Your task to perform on an android device: Go to calendar. Show me events next week Image 0: 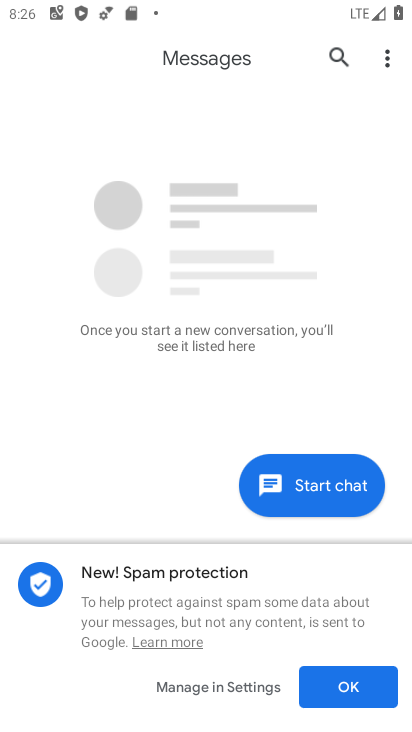
Step 0: press back button
Your task to perform on an android device: Go to calendar. Show me events next week Image 1: 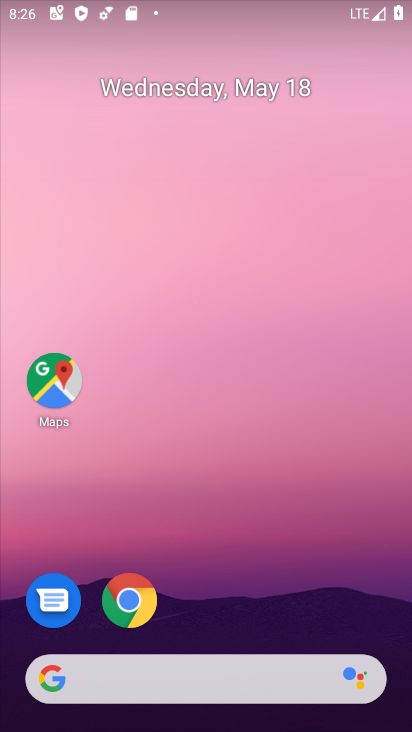
Step 1: drag from (235, 584) to (287, 52)
Your task to perform on an android device: Go to calendar. Show me events next week Image 2: 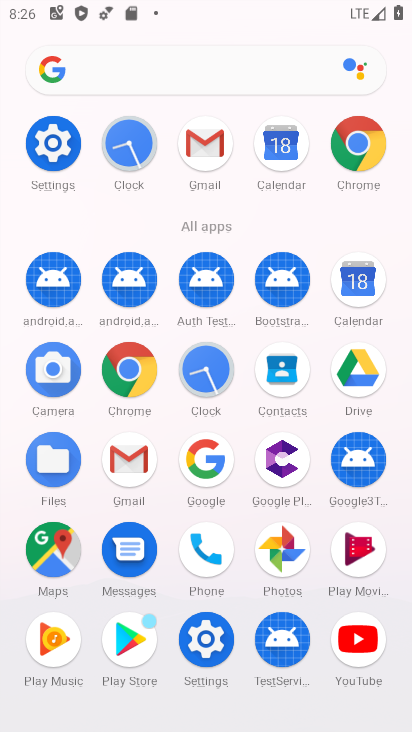
Step 2: click (360, 296)
Your task to perform on an android device: Go to calendar. Show me events next week Image 3: 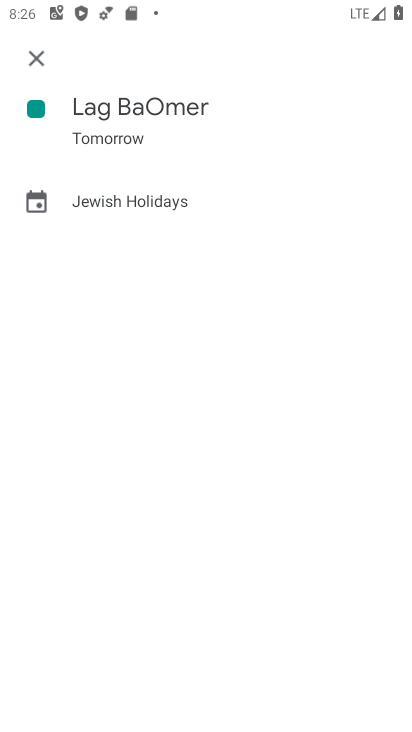
Step 3: click (36, 54)
Your task to perform on an android device: Go to calendar. Show me events next week Image 4: 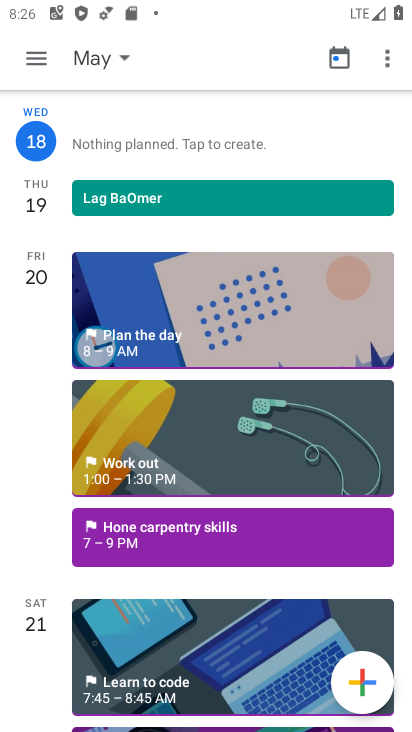
Step 4: click (94, 58)
Your task to perform on an android device: Go to calendar. Show me events next week Image 5: 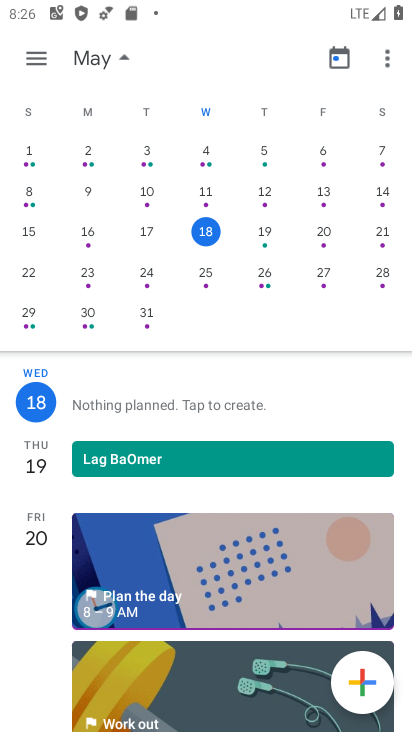
Step 5: click (76, 274)
Your task to perform on an android device: Go to calendar. Show me events next week Image 6: 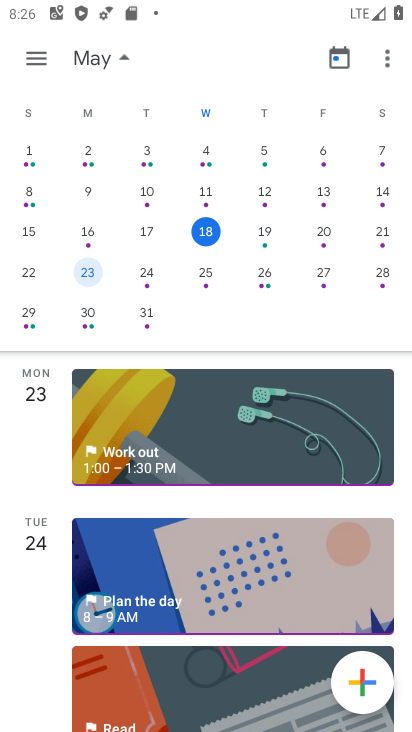
Step 6: drag from (132, 601) to (220, 165)
Your task to perform on an android device: Go to calendar. Show me events next week Image 7: 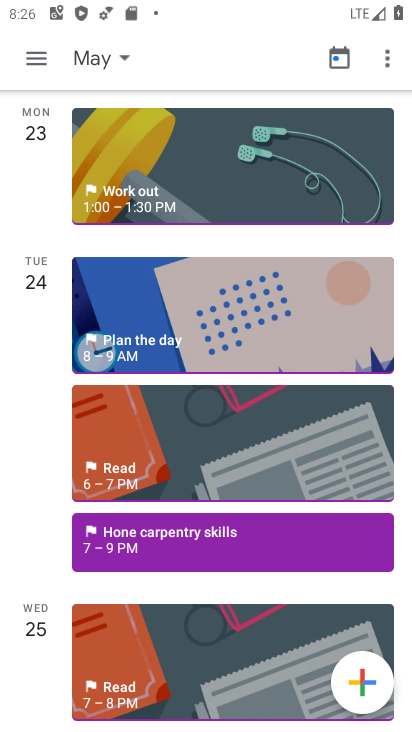
Step 7: drag from (191, 638) to (286, 75)
Your task to perform on an android device: Go to calendar. Show me events next week Image 8: 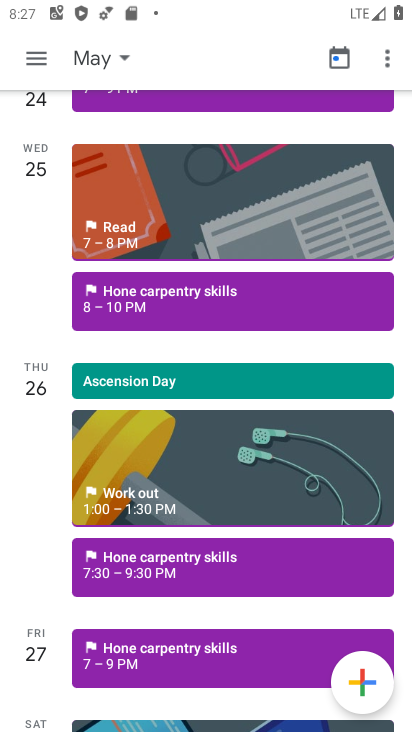
Step 8: click (143, 372)
Your task to perform on an android device: Go to calendar. Show me events next week Image 9: 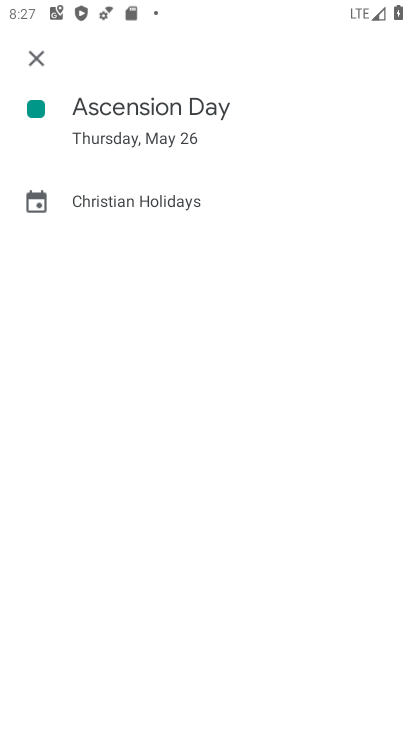
Step 9: task complete